Your task to perform on an android device: When is my next meeting? Image 0: 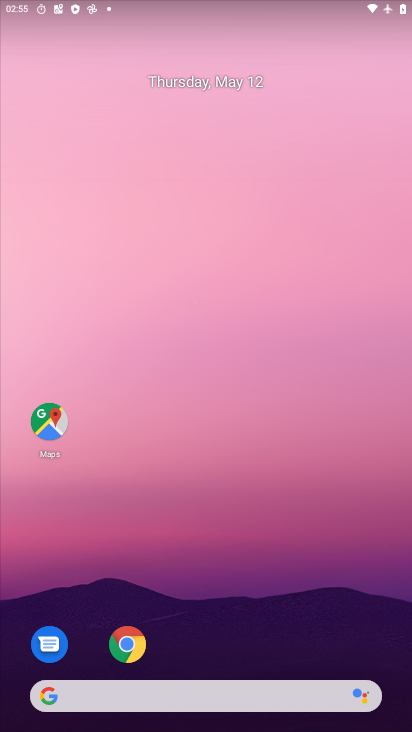
Step 0: drag from (246, 574) to (228, 78)
Your task to perform on an android device: When is my next meeting? Image 1: 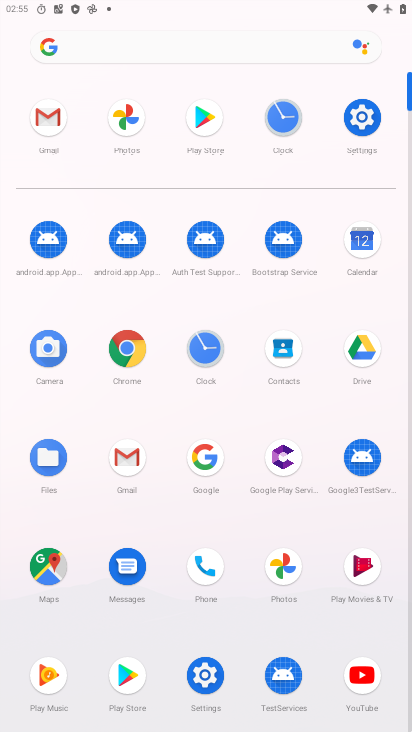
Step 1: click (359, 250)
Your task to perform on an android device: When is my next meeting? Image 2: 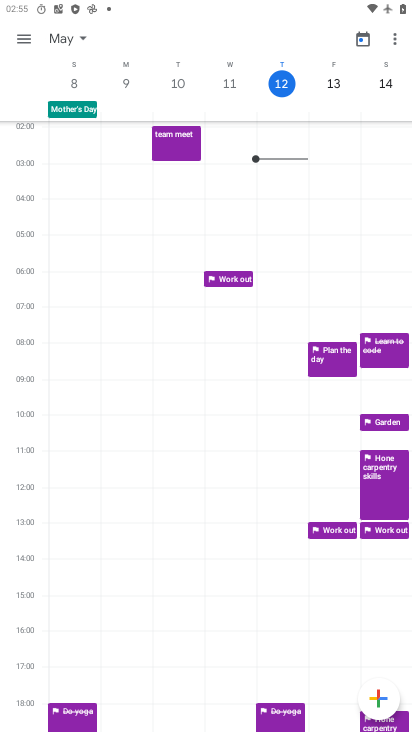
Step 2: task complete